Your task to perform on an android device: turn on translation in the chrome app Image 0: 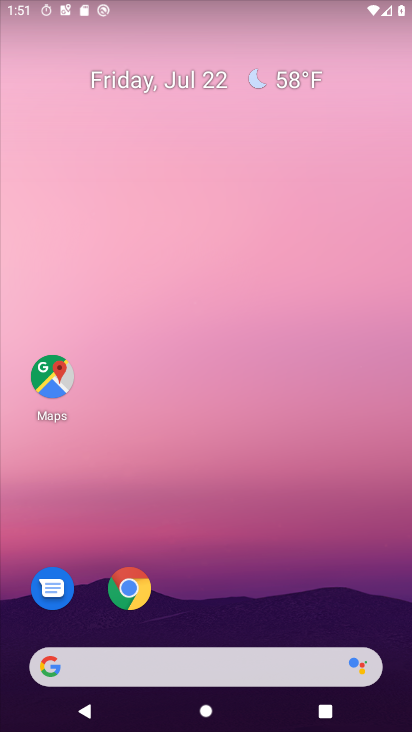
Step 0: press home button
Your task to perform on an android device: turn on translation in the chrome app Image 1: 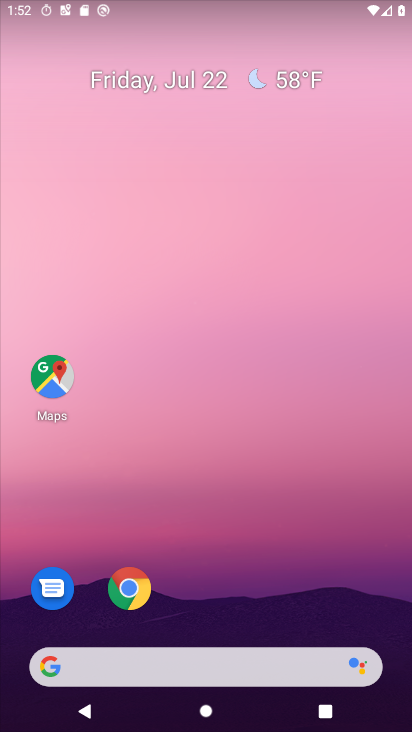
Step 1: click (131, 595)
Your task to perform on an android device: turn on translation in the chrome app Image 2: 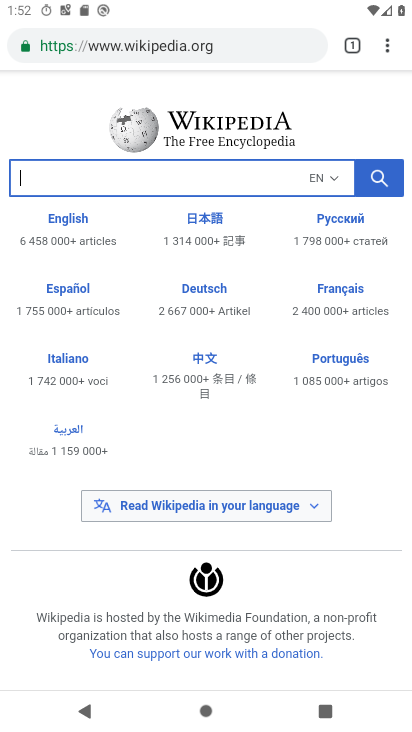
Step 2: click (393, 21)
Your task to perform on an android device: turn on translation in the chrome app Image 3: 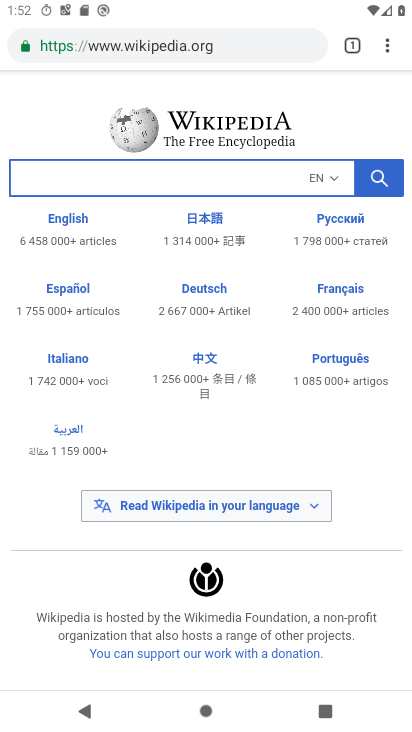
Step 3: drag from (387, 43) to (215, 547)
Your task to perform on an android device: turn on translation in the chrome app Image 4: 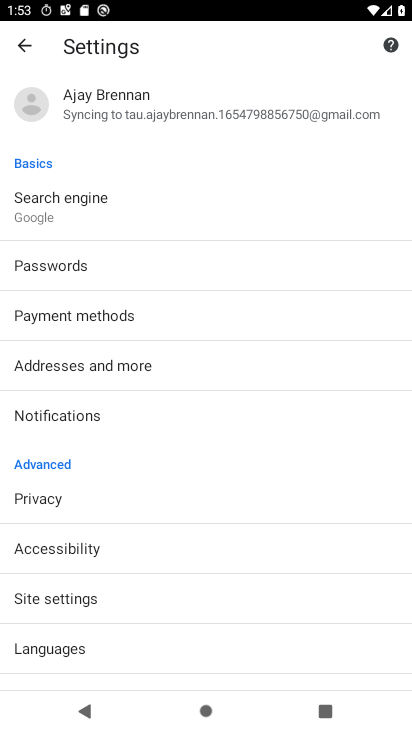
Step 4: click (73, 630)
Your task to perform on an android device: turn on translation in the chrome app Image 5: 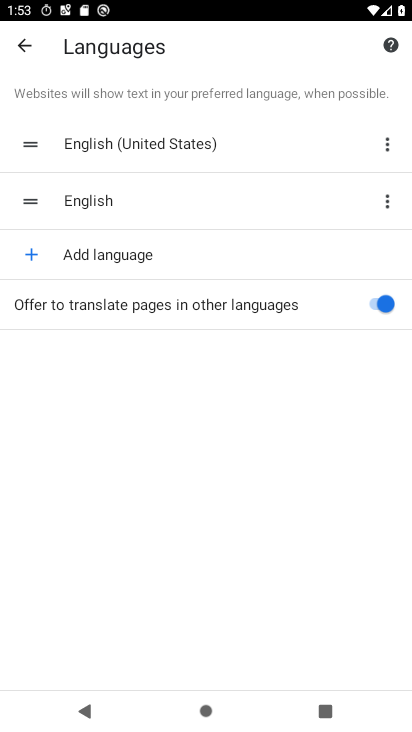
Step 5: task complete